Your task to perform on an android device: Search for pizza restaurants on Maps Image 0: 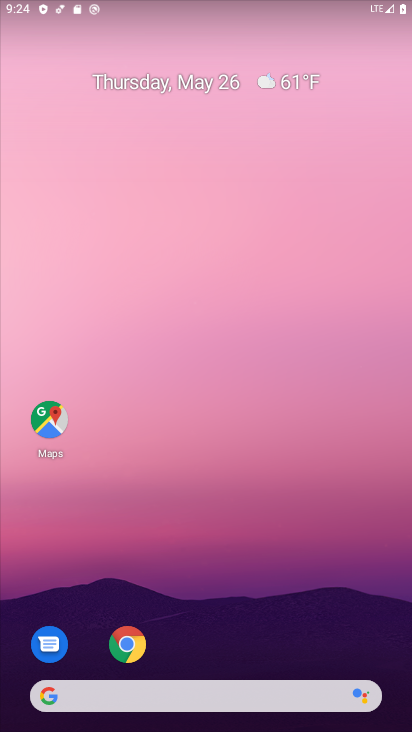
Step 0: drag from (249, 710) to (89, 69)
Your task to perform on an android device: Search for pizza restaurants on Maps Image 1: 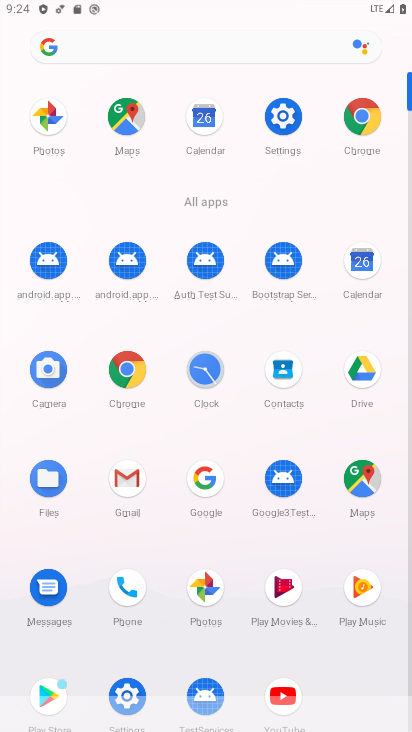
Step 1: click (125, 119)
Your task to perform on an android device: Search for pizza restaurants on Maps Image 2: 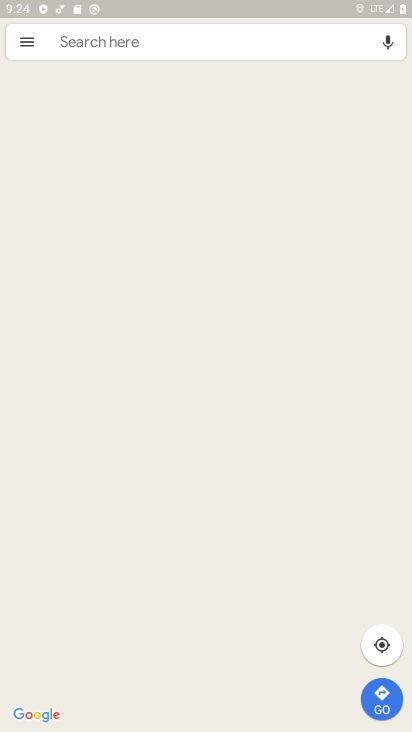
Step 2: click (55, 41)
Your task to perform on an android device: Search for pizza restaurants on Maps Image 3: 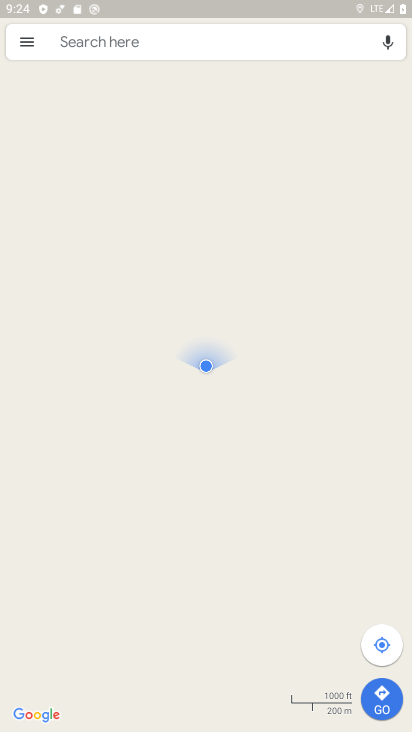
Step 3: click (63, 34)
Your task to perform on an android device: Search for pizza restaurants on Maps Image 4: 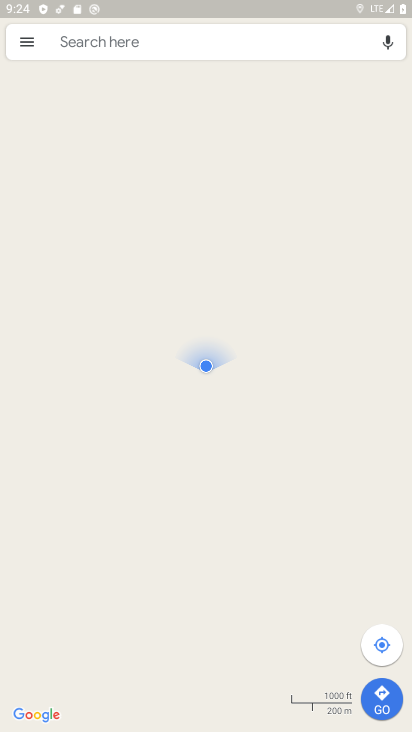
Step 4: click (63, 33)
Your task to perform on an android device: Search for pizza restaurants on Maps Image 5: 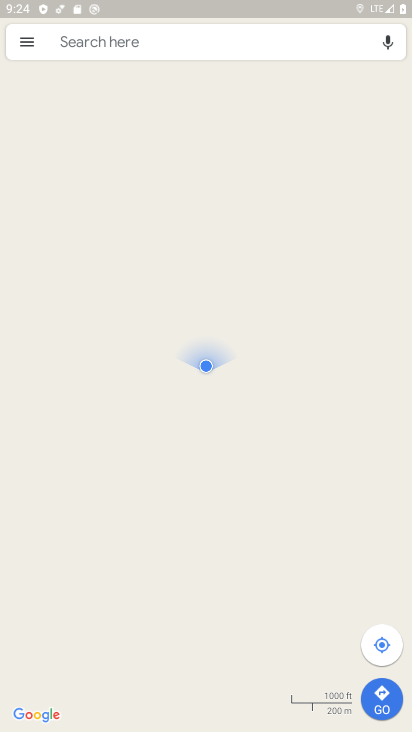
Step 5: click (64, 32)
Your task to perform on an android device: Search for pizza restaurants on Maps Image 6: 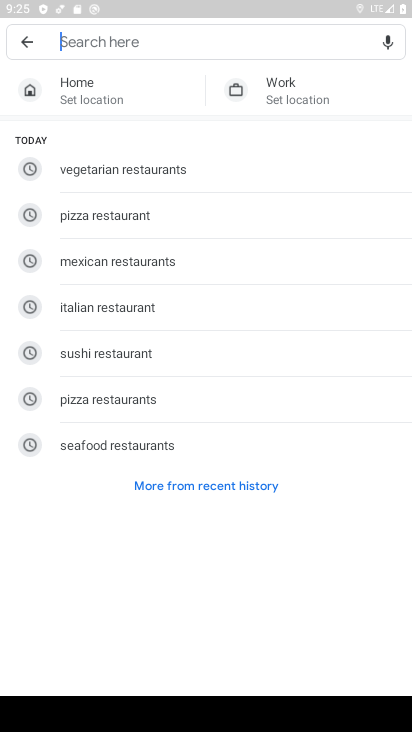
Step 6: type "pizza restaurants"
Your task to perform on an android device: Search for pizza restaurants on Maps Image 7: 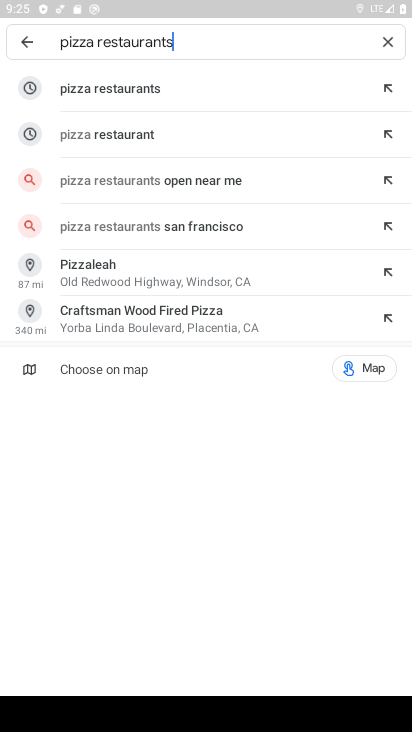
Step 7: click (126, 87)
Your task to perform on an android device: Search for pizza restaurants on Maps Image 8: 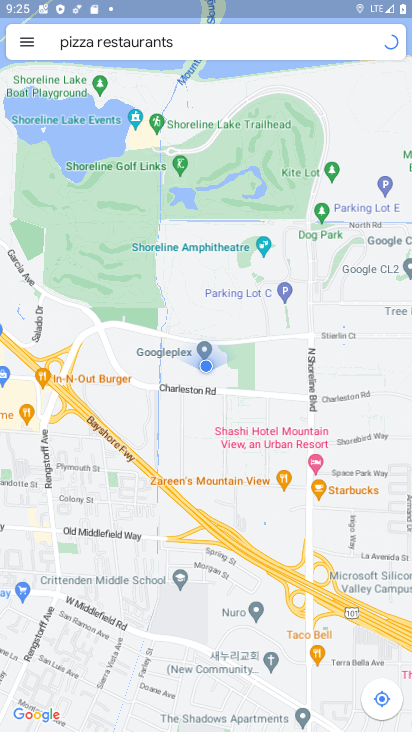
Step 8: task complete